Your task to perform on an android device: toggle location history Image 0: 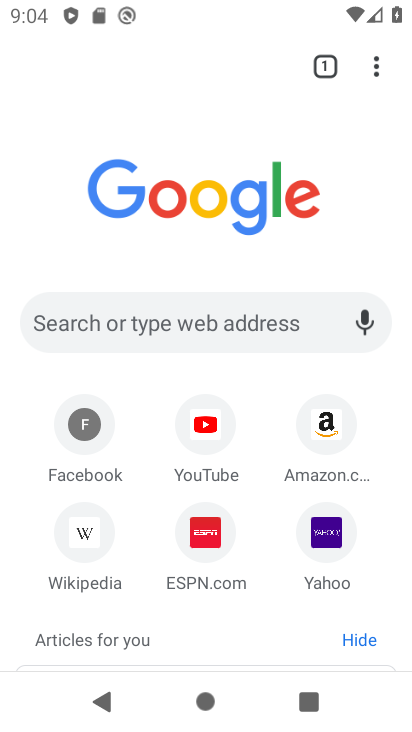
Step 0: press home button
Your task to perform on an android device: toggle location history Image 1: 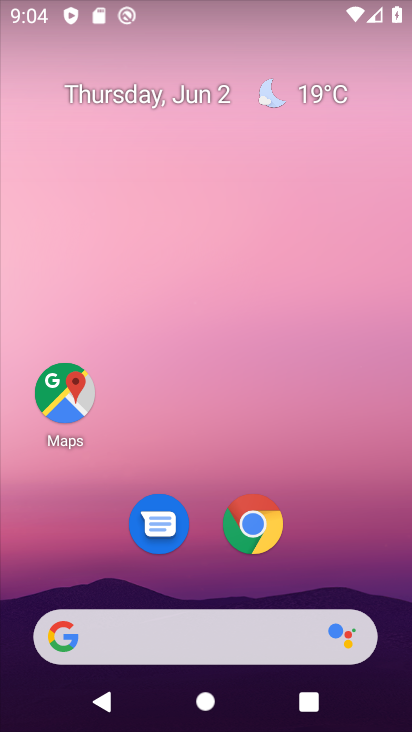
Step 1: drag from (183, 467) to (170, 20)
Your task to perform on an android device: toggle location history Image 2: 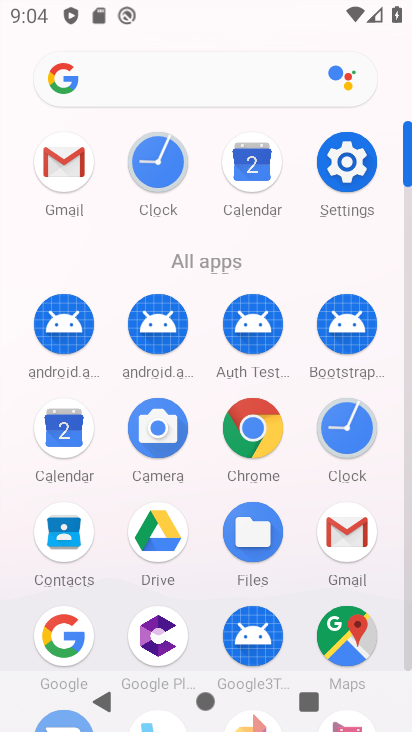
Step 2: click (335, 165)
Your task to perform on an android device: toggle location history Image 3: 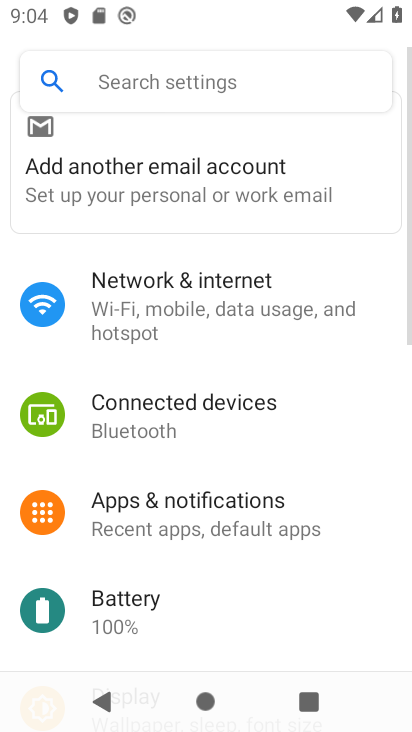
Step 3: click (285, 216)
Your task to perform on an android device: toggle location history Image 4: 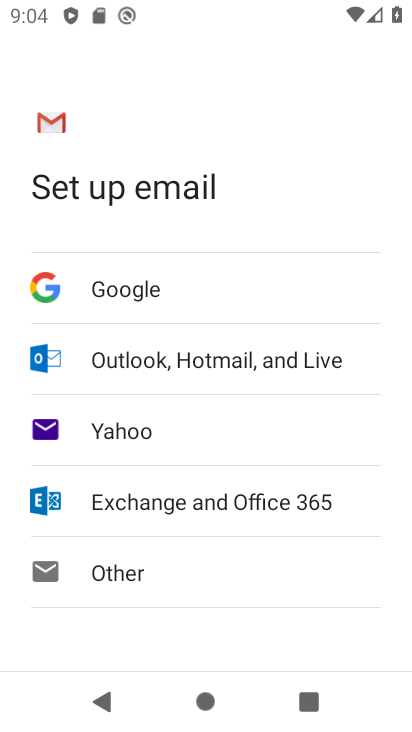
Step 4: press home button
Your task to perform on an android device: toggle location history Image 5: 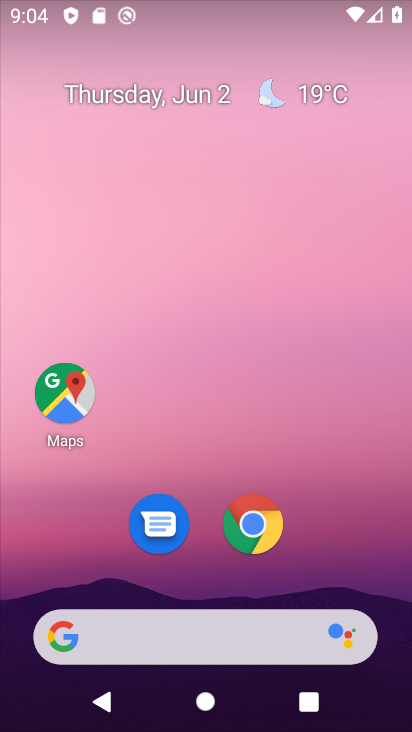
Step 5: drag from (192, 553) to (248, 14)
Your task to perform on an android device: toggle location history Image 6: 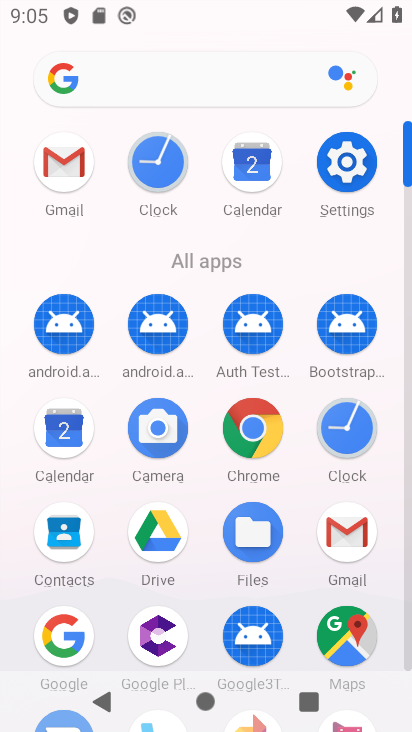
Step 6: click (352, 170)
Your task to perform on an android device: toggle location history Image 7: 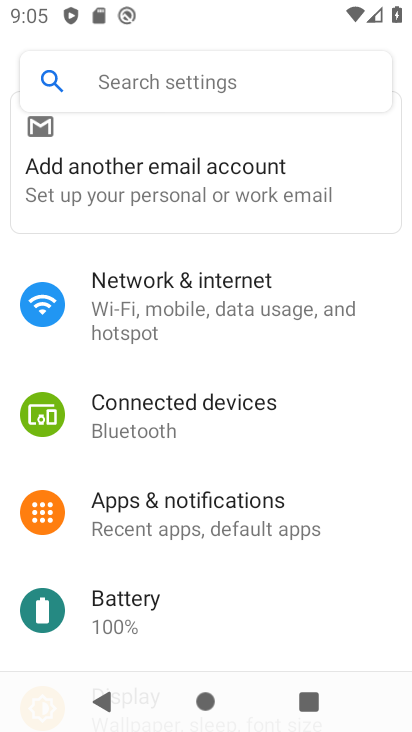
Step 7: drag from (218, 597) to (244, 81)
Your task to perform on an android device: toggle location history Image 8: 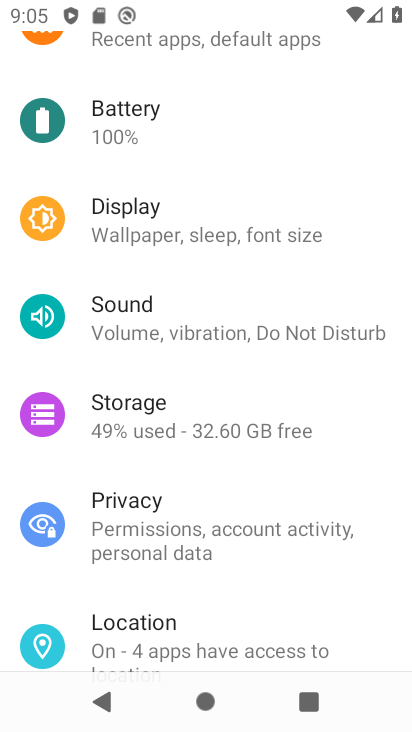
Step 8: click (175, 624)
Your task to perform on an android device: toggle location history Image 9: 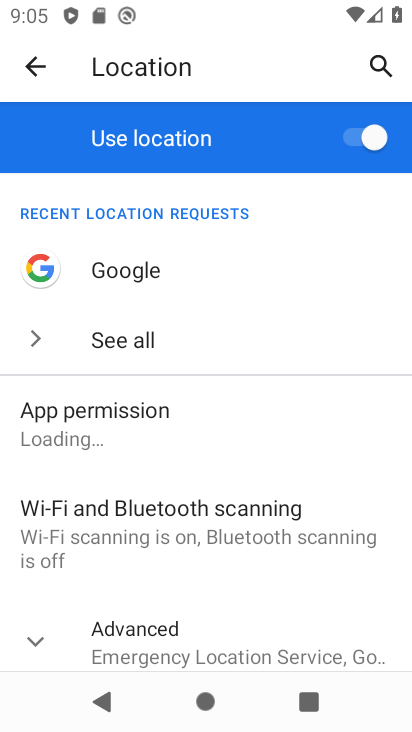
Step 9: drag from (218, 559) to (215, 64)
Your task to perform on an android device: toggle location history Image 10: 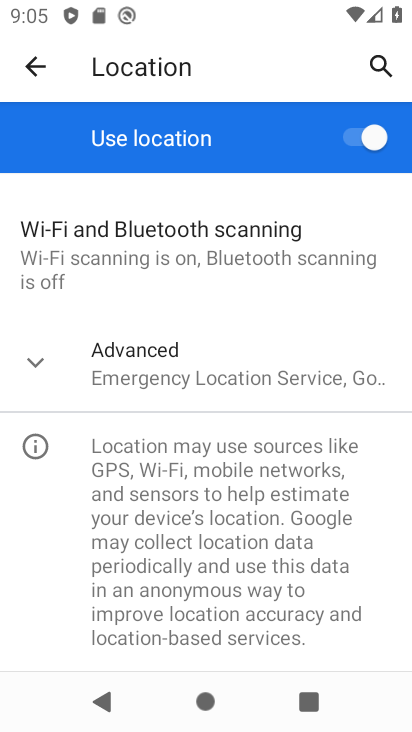
Step 10: click (41, 356)
Your task to perform on an android device: toggle location history Image 11: 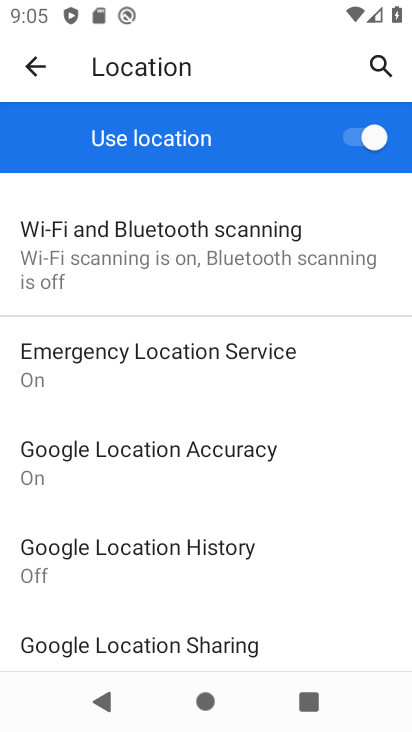
Step 11: click (152, 579)
Your task to perform on an android device: toggle location history Image 12: 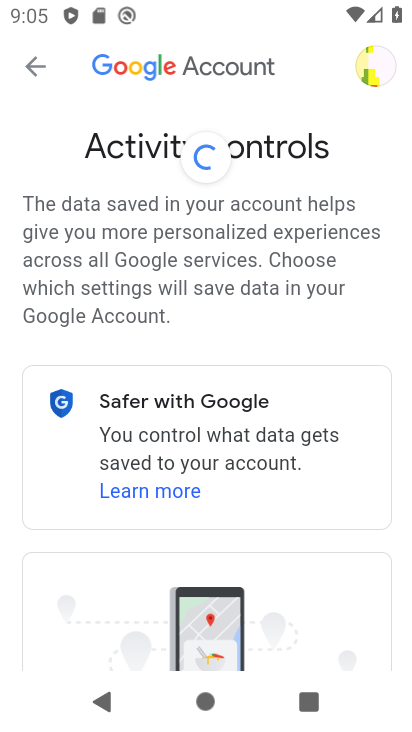
Step 12: drag from (150, 593) to (172, 161)
Your task to perform on an android device: toggle location history Image 13: 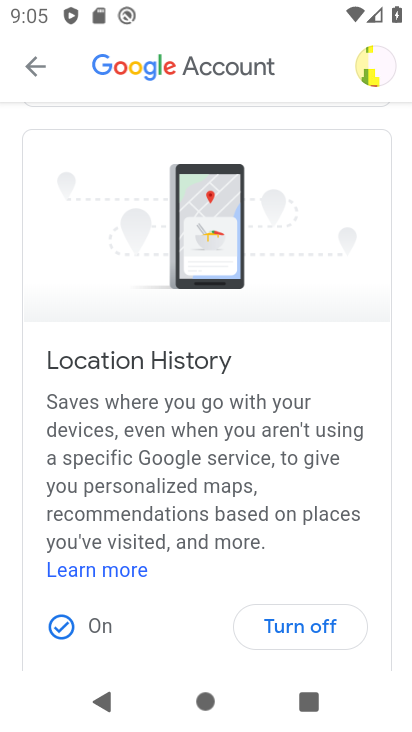
Step 13: click (303, 621)
Your task to perform on an android device: toggle location history Image 14: 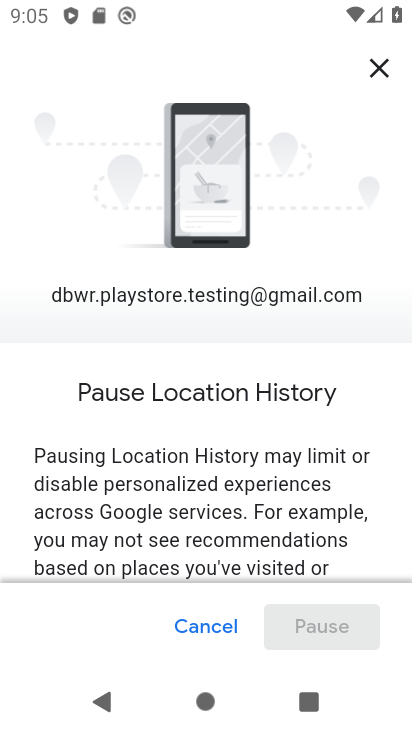
Step 14: drag from (263, 517) to (301, 64)
Your task to perform on an android device: toggle location history Image 15: 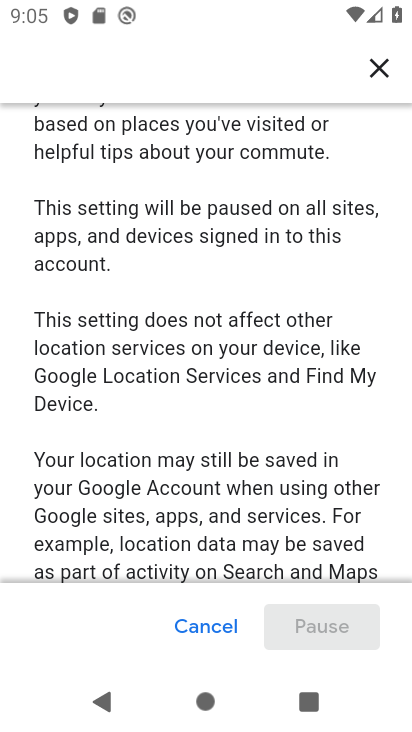
Step 15: drag from (243, 481) to (267, 93)
Your task to perform on an android device: toggle location history Image 16: 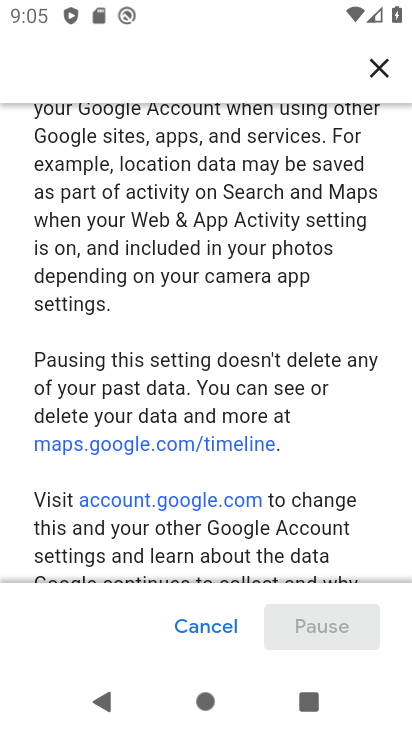
Step 16: drag from (312, 457) to (322, 109)
Your task to perform on an android device: toggle location history Image 17: 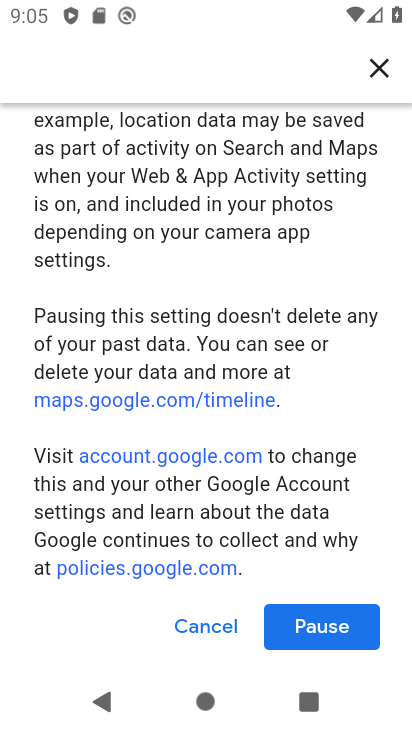
Step 17: click (345, 624)
Your task to perform on an android device: toggle location history Image 18: 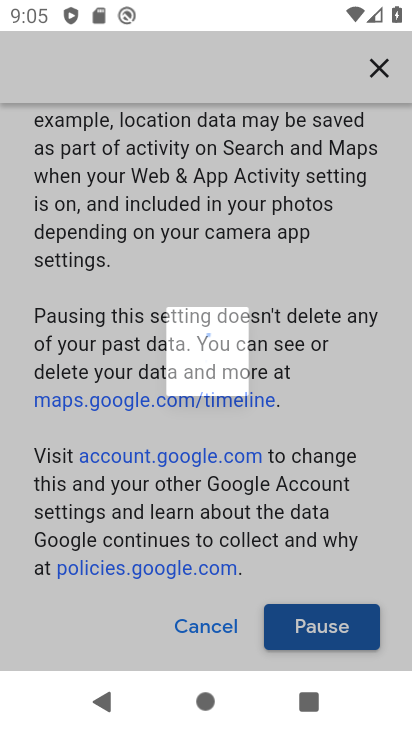
Step 18: click (345, 620)
Your task to perform on an android device: toggle location history Image 19: 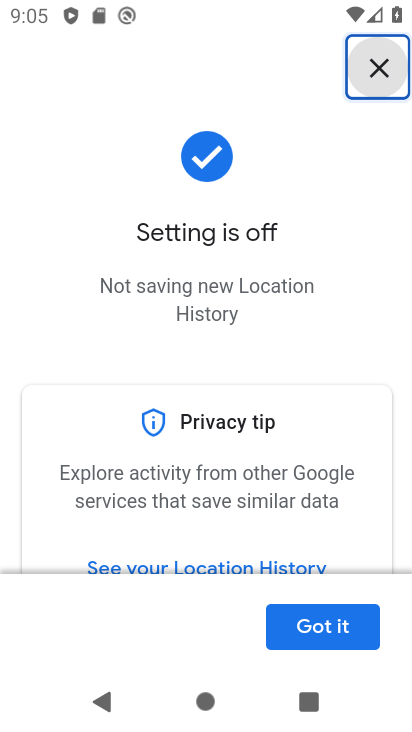
Step 19: click (345, 624)
Your task to perform on an android device: toggle location history Image 20: 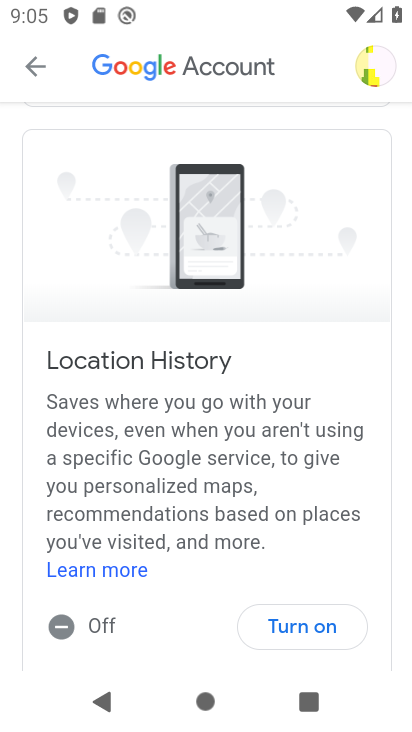
Step 20: task complete